Your task to perform on an android device: open app "Spotify: Music and Podcasts" Image 0: 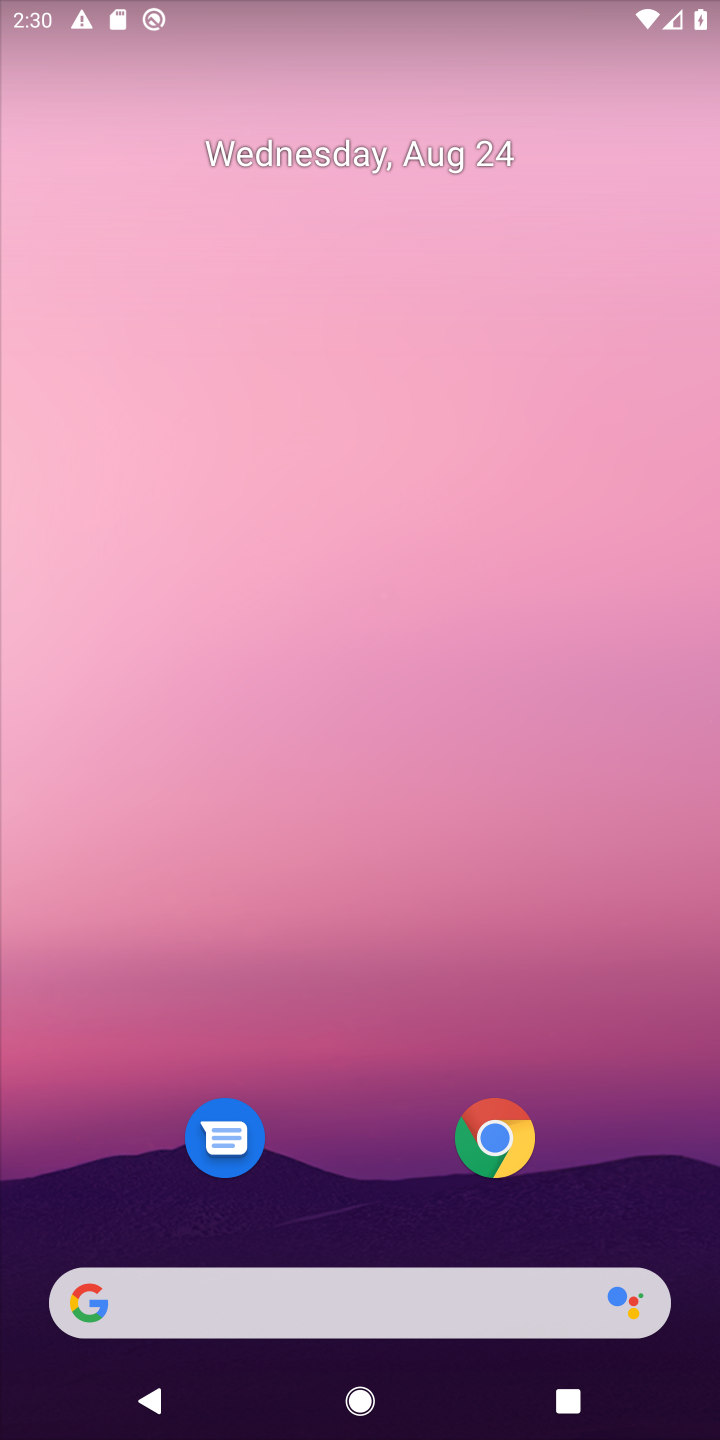
Step 0: drag from (344, 527) to (344, 67)
Your task to perform on an android device: open app "Spotify: Music and Podcasts" Image 1: 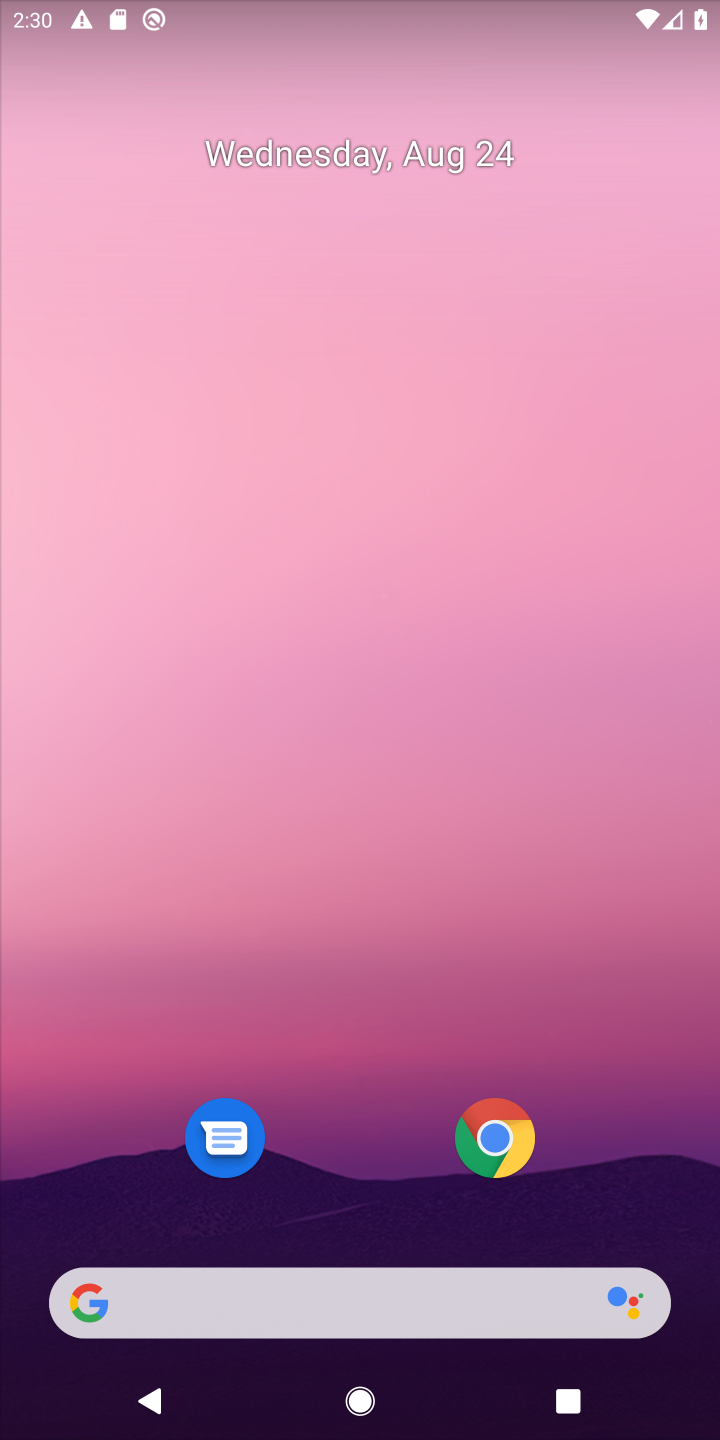
Step 1: drag from (386, 839) to (383, 13)
Your task to perform on an android device: open app "Spotify: Music and Podcasts" Image 2: 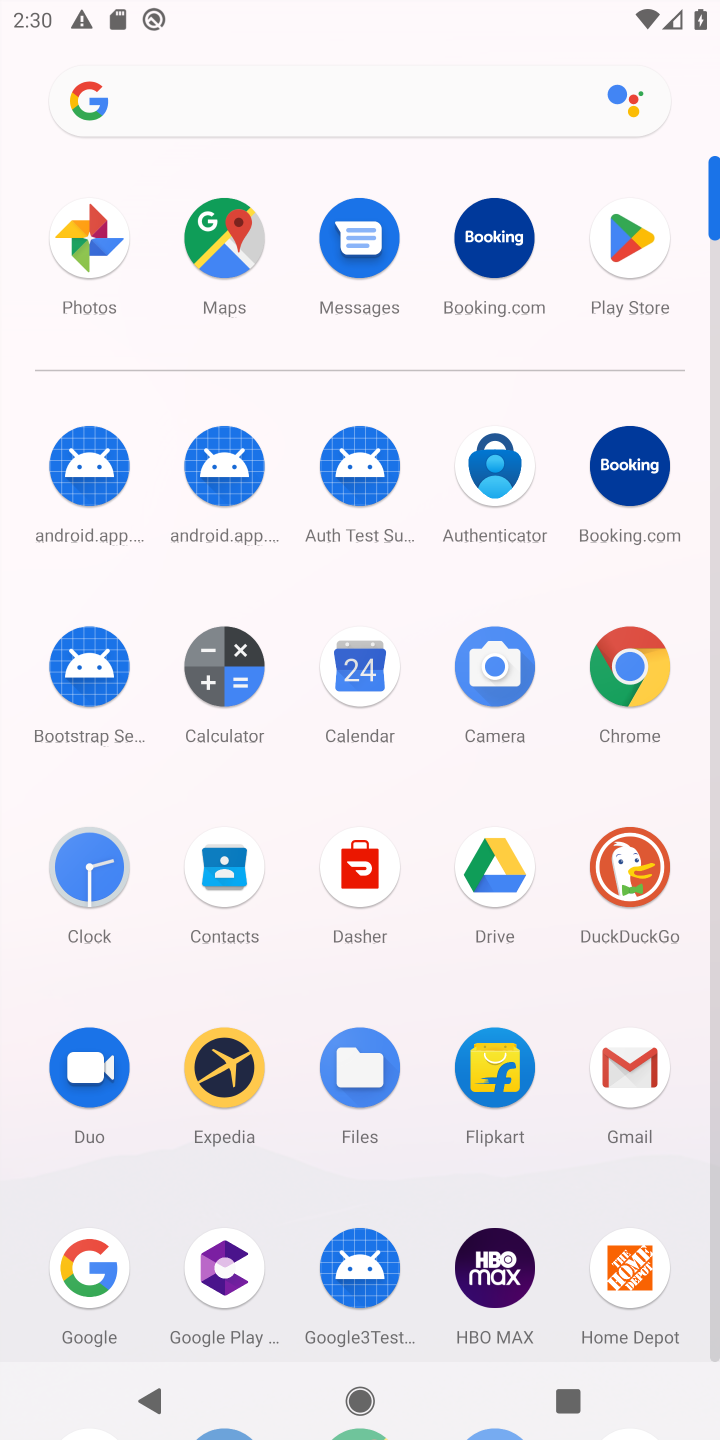
Step 2: click (626, 237)
Your task to perform on an android device: open app "Spotify: Music and Podcasts" Image 3: 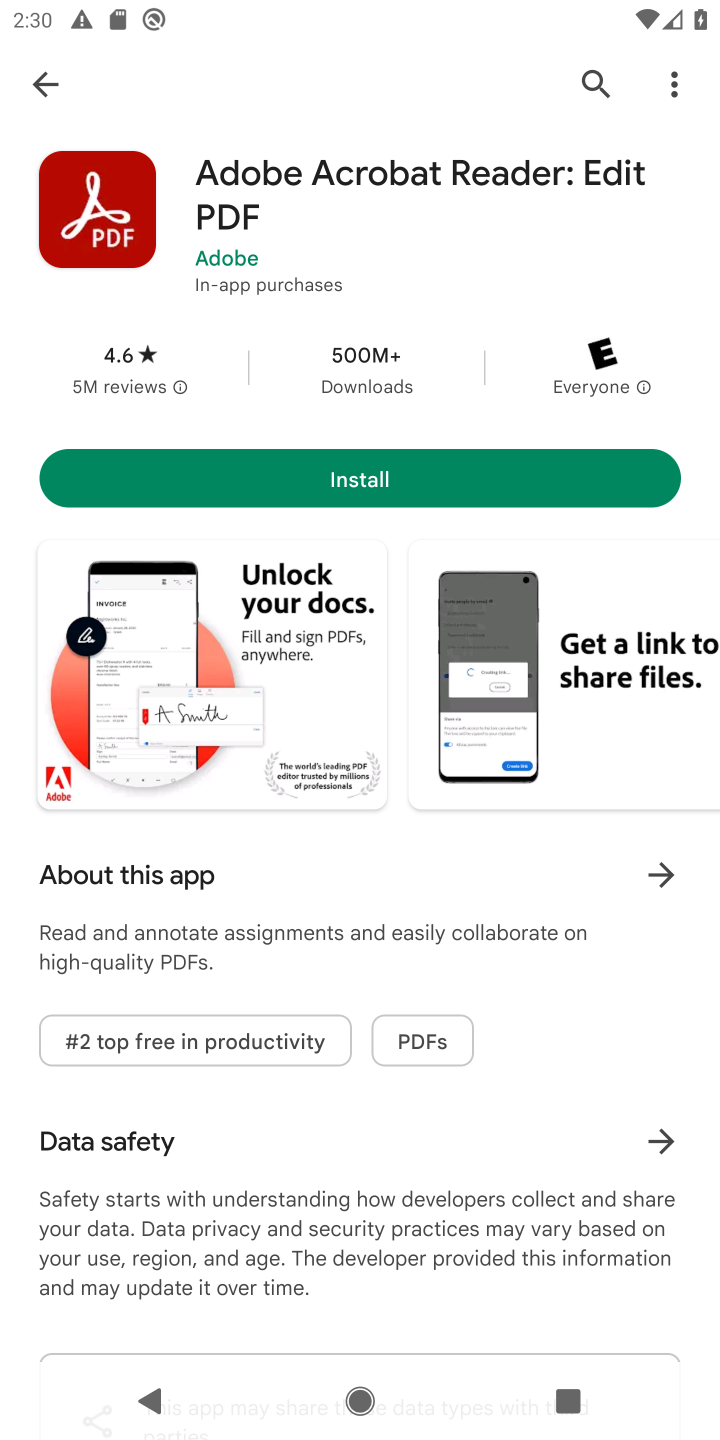
Step 3: click (593, 83)
Your task to perform on an android device: open app "Spotify: Music and Podcasts" Image 4: 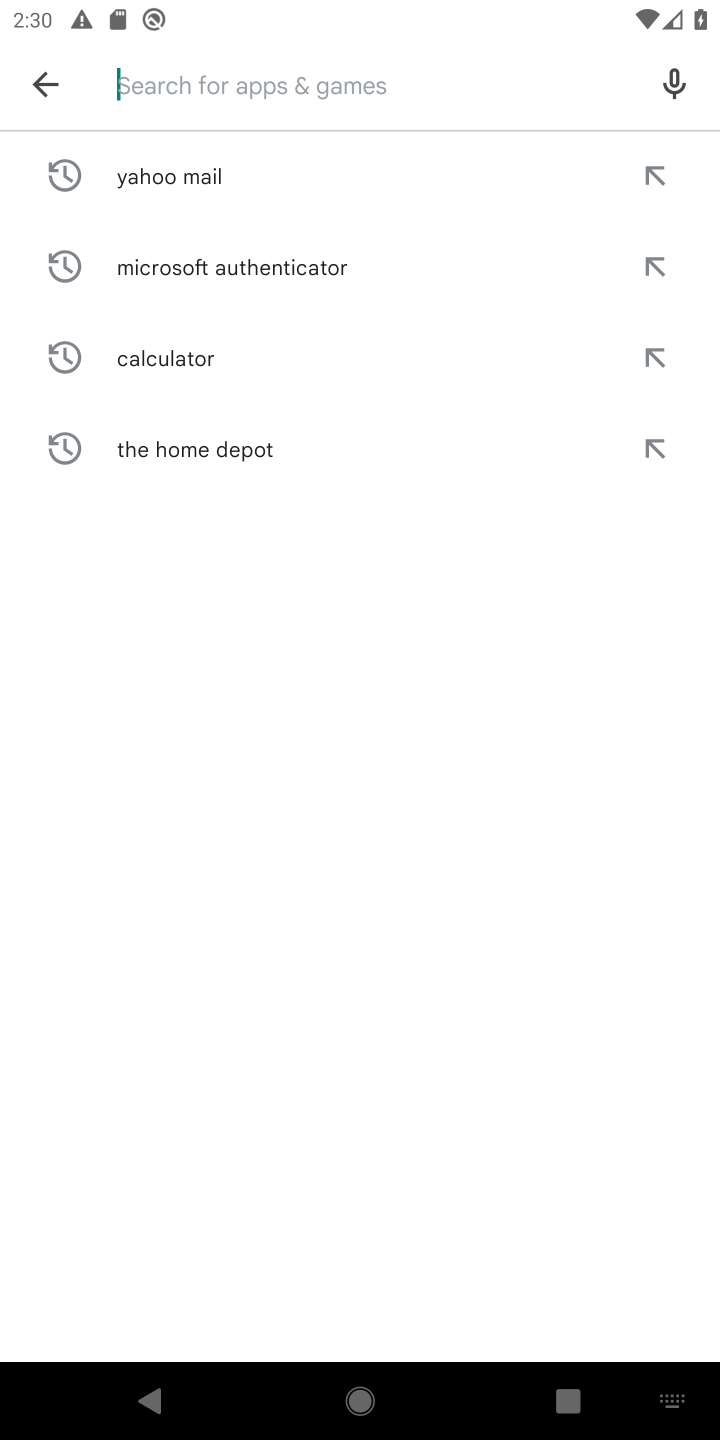
Step 4: type "Spotify: Music and Podcasts"
Your task to perform on an android device: open app "Spotify: Music and Podcasts" Image 5: 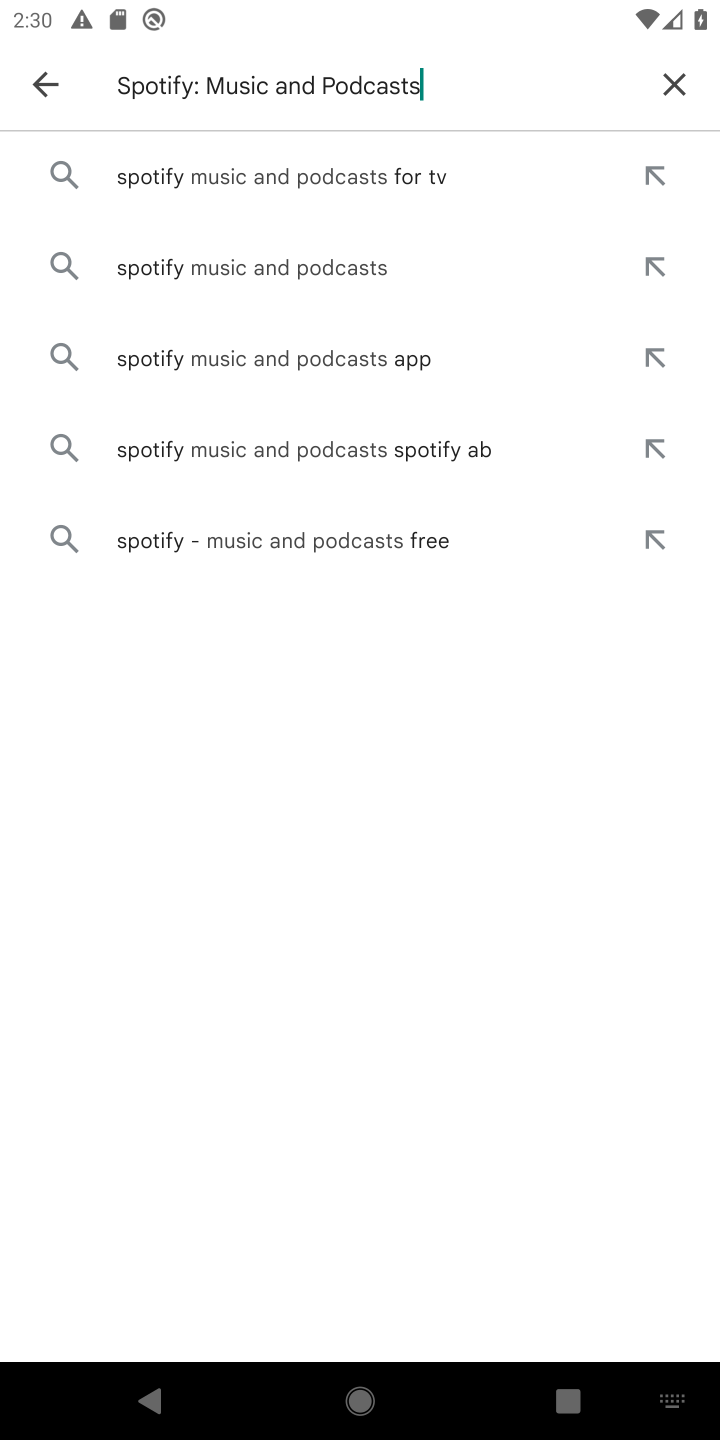
Step 5: click (319, 265)
Your task to perform on an android device: open app "Spotify: Music and Podcasts" Image 6: 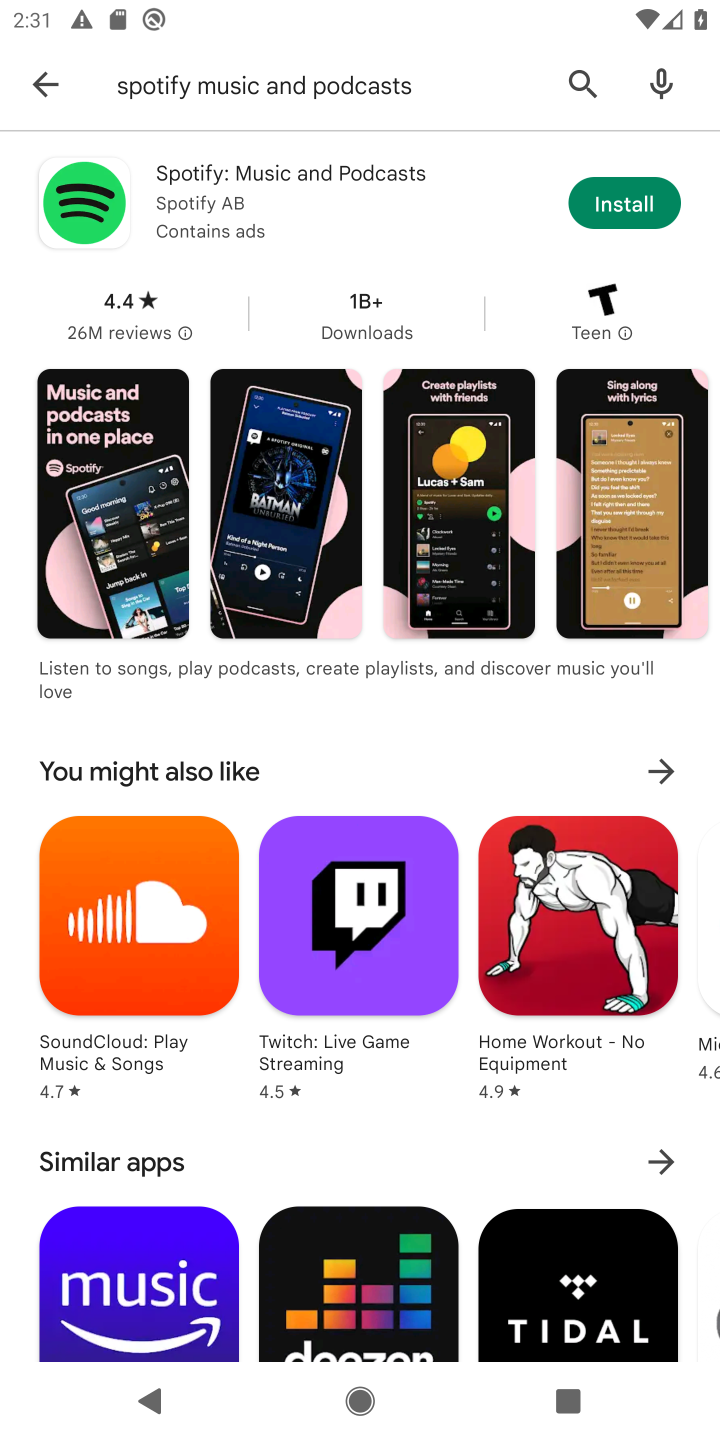
Step 6: task complete